Your task to perform on an android device: open wifi settings Image 0: 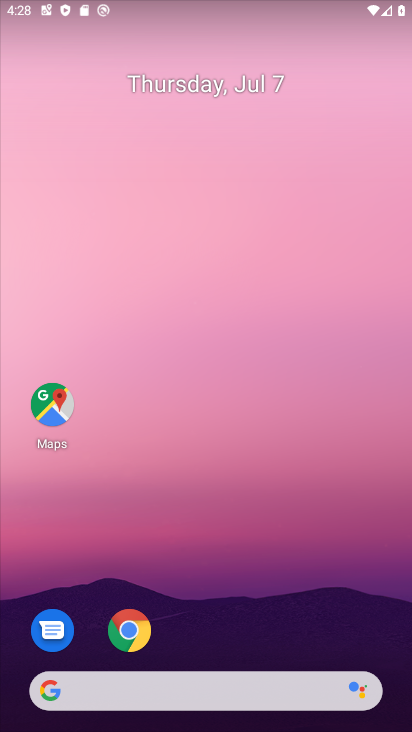
Step 0: drag from (190, 610) to (296, 19)
Your task to perform on an android device: open wifi settings Image 1: 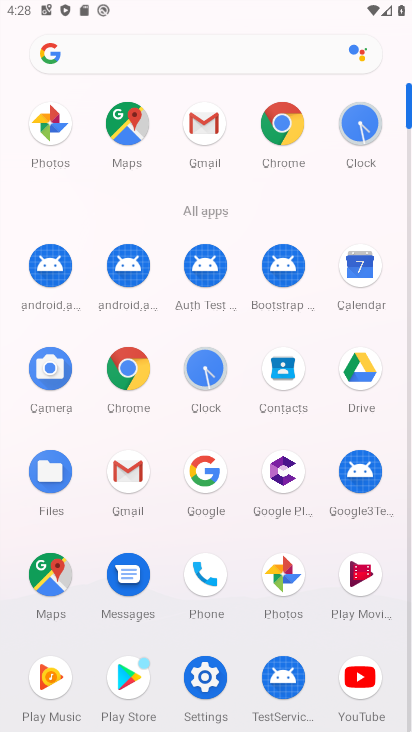
Step 1: click (213, 689)
Your task to perform on an android device: open wifi settings Image 2: 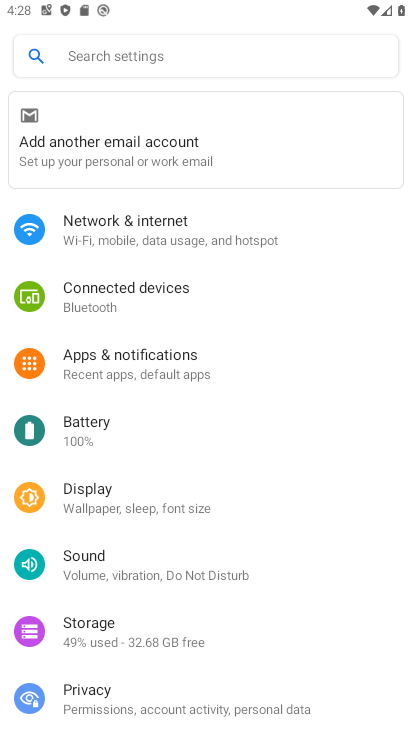
Step 2: click (128, 219)
Your task to perform on an android device: open wifi settings Image 3: 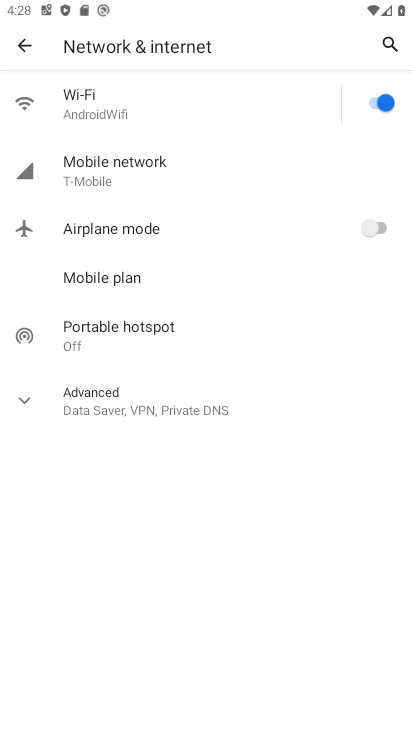
Step 3: click (208, 104)
Your task to perform on an android device: open wifi settings Image 4: 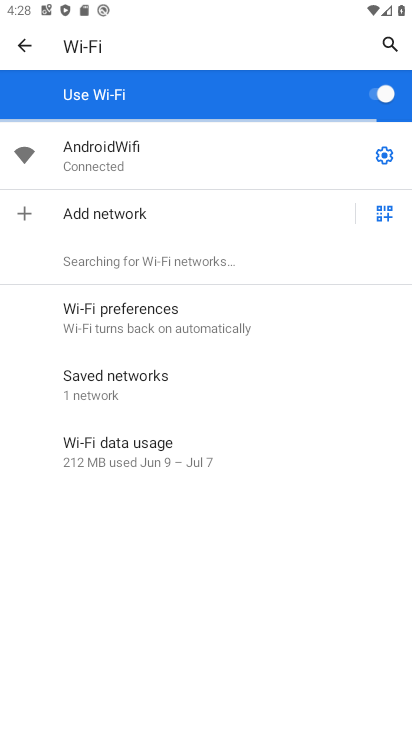
Step 4: task complete